Your task to perform on an android device: change the upload size in google photos Image 0: 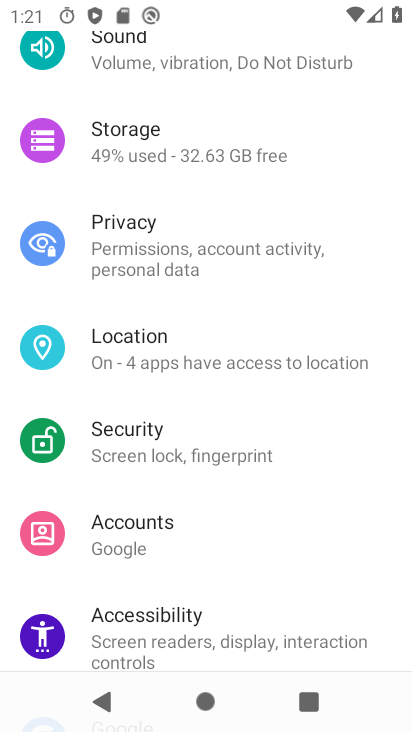
Step 0: press home button
Your task to perform on an android device: change the upload size in google photos Image 1: 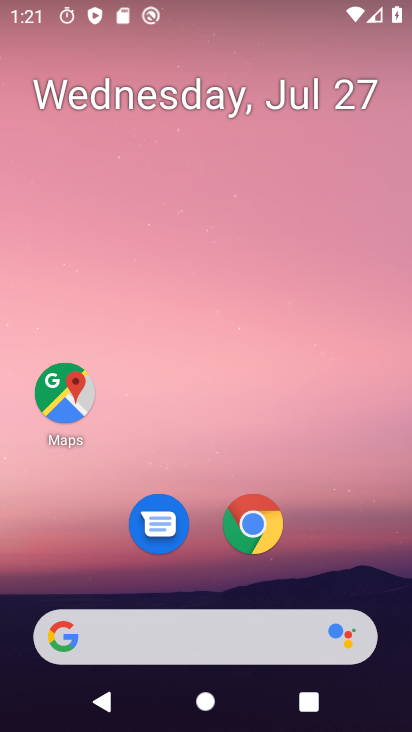
Step 1: drag from (316, 551) to (303, 108)
Your task to perform on an android device: change the upload size in google photos Image 2: 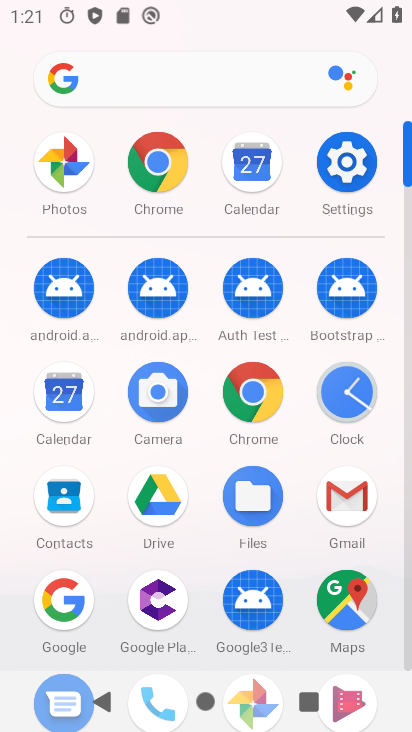
Step 2: click (64, 163)
Your task to perform on an android device: change the upload size in google photos Image 3: 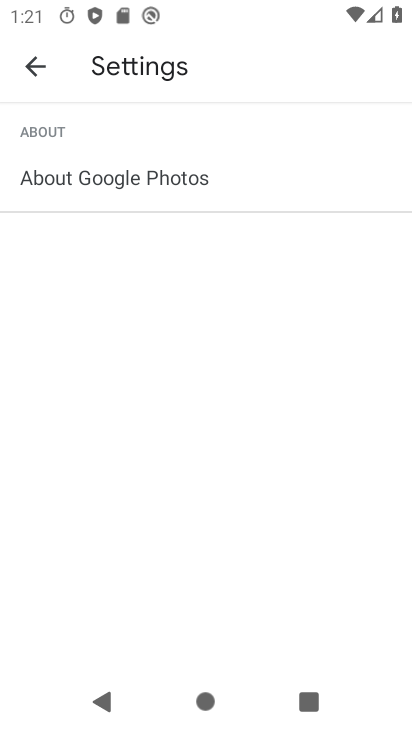
Step 3: click (43, 63)
Your task to perform on an android device: change the upload size in google photos Image 4: 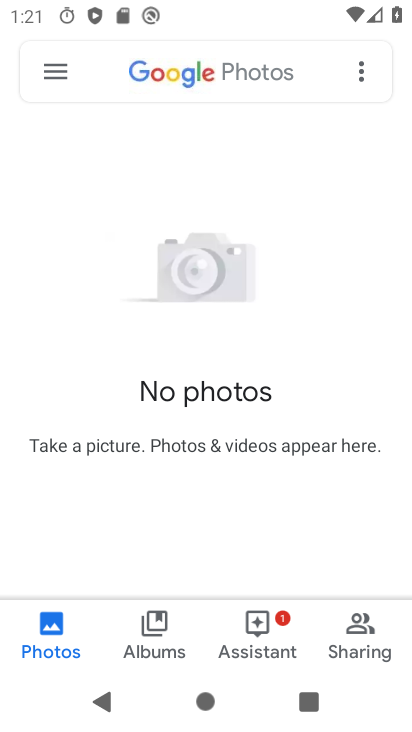
Step 4: click (50, 68)
Your task to perform on an android device: change the upload size in google photos Image 5: 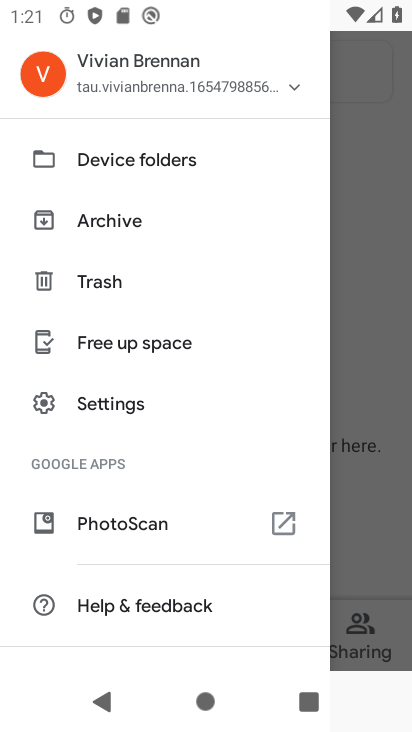
Step 5: click (119, 388)
Your task to perform on an android device: change the upload size in google photos Image 6: 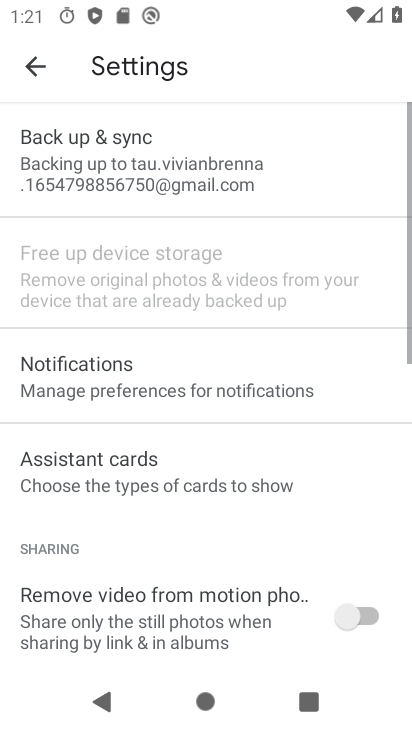
Step 6: click (146, 157)
Your task to perform on an android device: change the upload size in google photos Image 7: 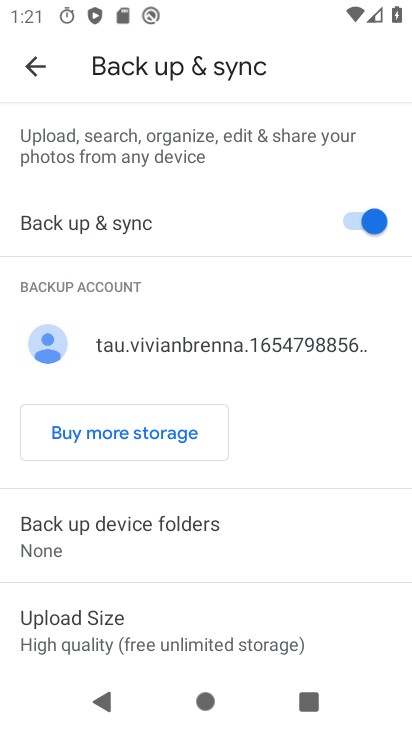
Step 7: click (203, 625)
Your task to perform on an android device: change the upload size in google photos Image 8: 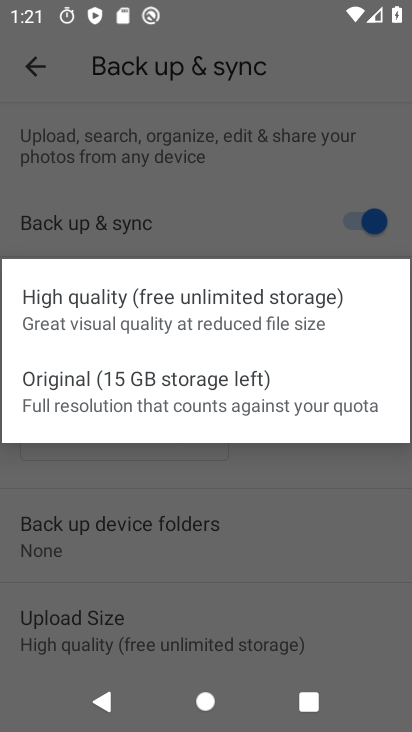
Step 8: click (202, 392)
Your task to perform on an android device: change the upload size in google photos Image 9: 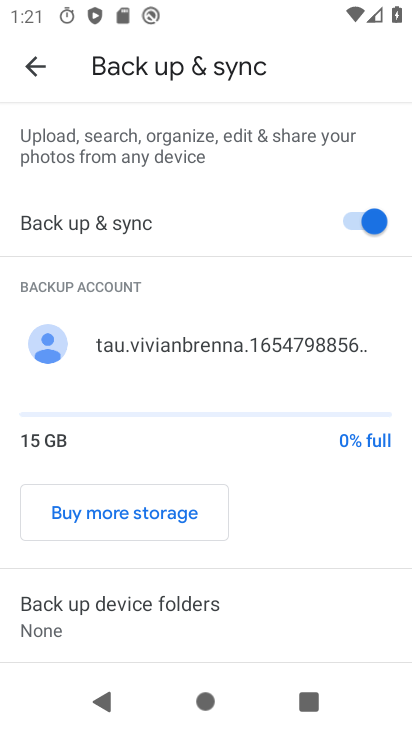
Step 9: task complete